Your task to perform on an android device: View the shopping cart on amazon. Search for logitech g pro on amazon, select the first entry, and add it to the cart. Image 0: 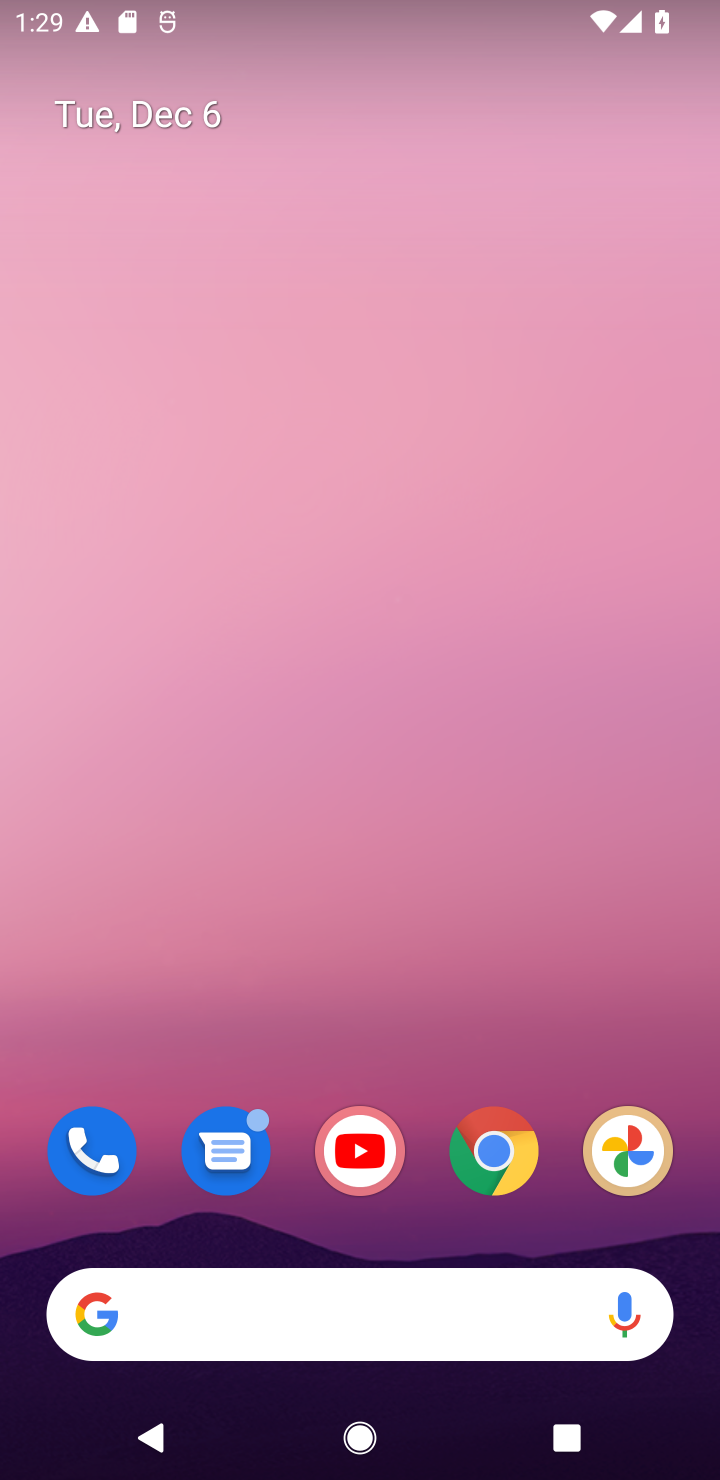
Step 0: click (495, 1156)
Your task to perform on an android device: View the shopping cart on amazon. Search for logitech g pro on amazon, select the first entry, and add it to the cart. Image 1: 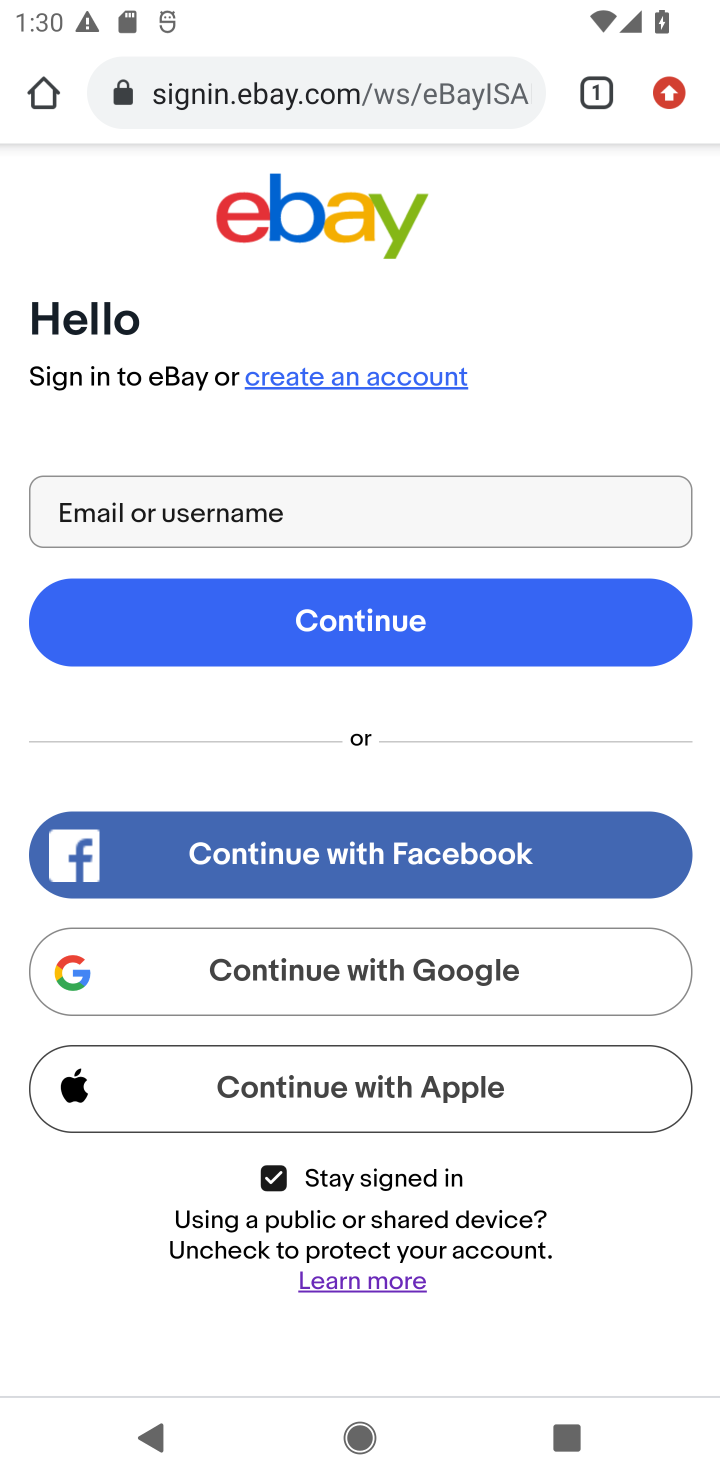
Step 1: click (330, 96)
Your task to perform on an android device: View the shopping cart on amazon. Search for logitech g pro on amazon, select the first entry, and add it to the cart. Image 2: 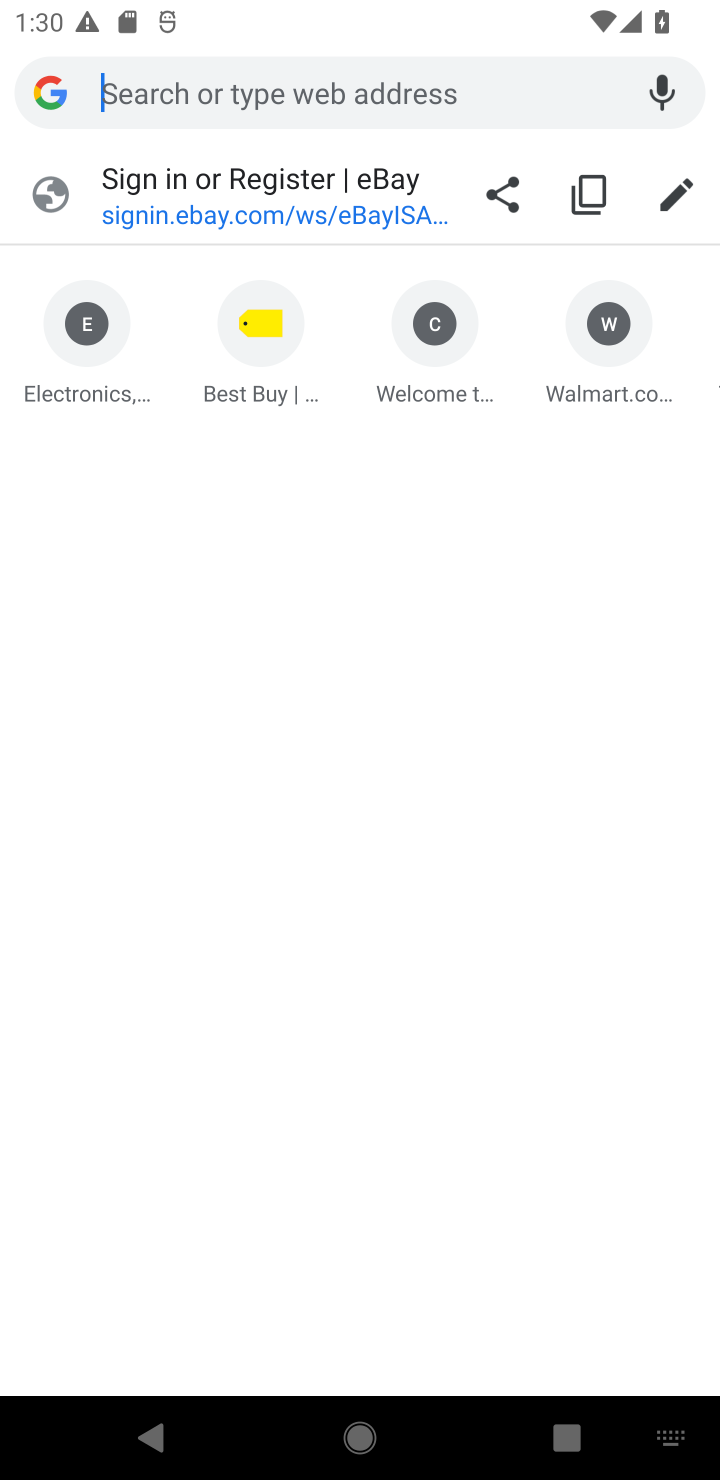
Step 2: type "amazon.com"
Your task to perform on an android device: View the shopping cart on amazon. Search for logitech g pro on amazon, select the first entry, and add it to the cart. Image 3: 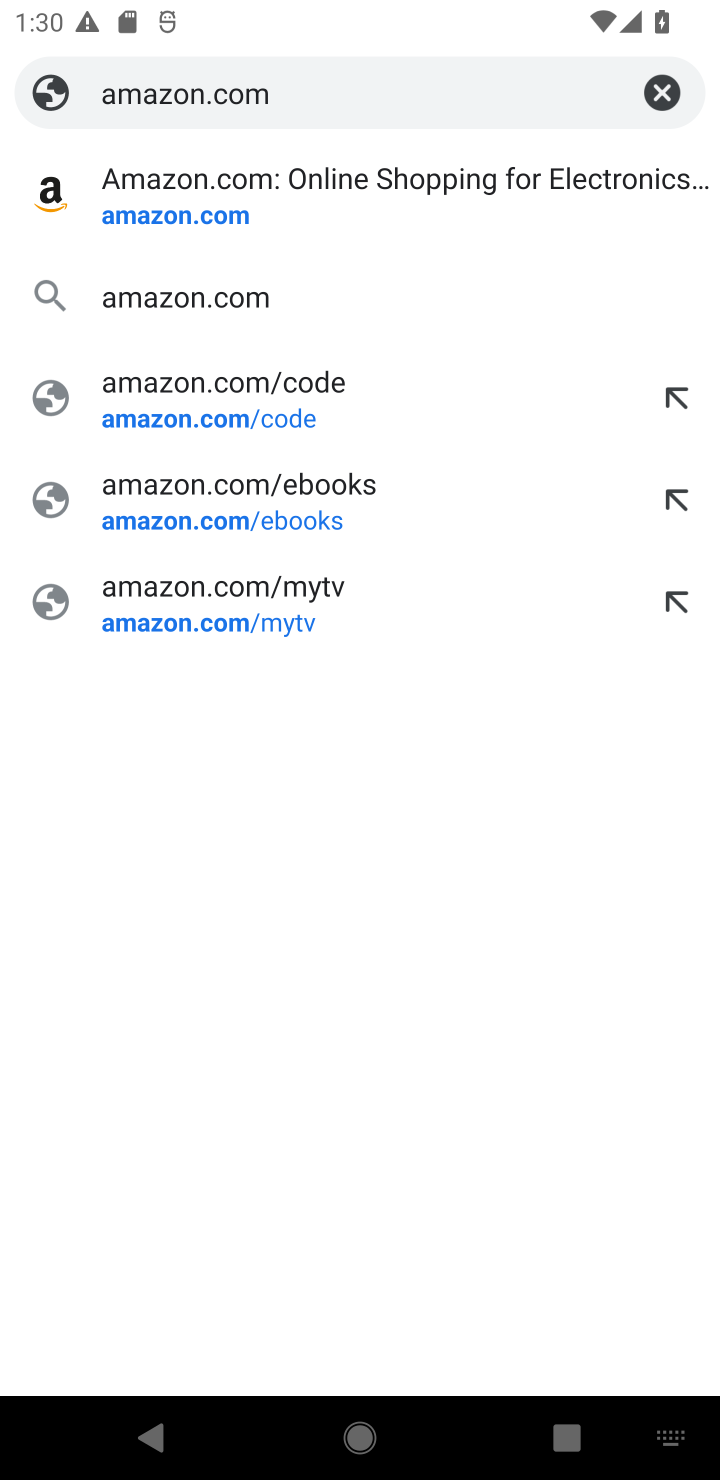
Step 3: click (186, 228)
Your task to perform on an android device: View the shopping cart on amazon. Search for logitech g pro on amazon, select the first entry, and add it to the cart. Image 4: 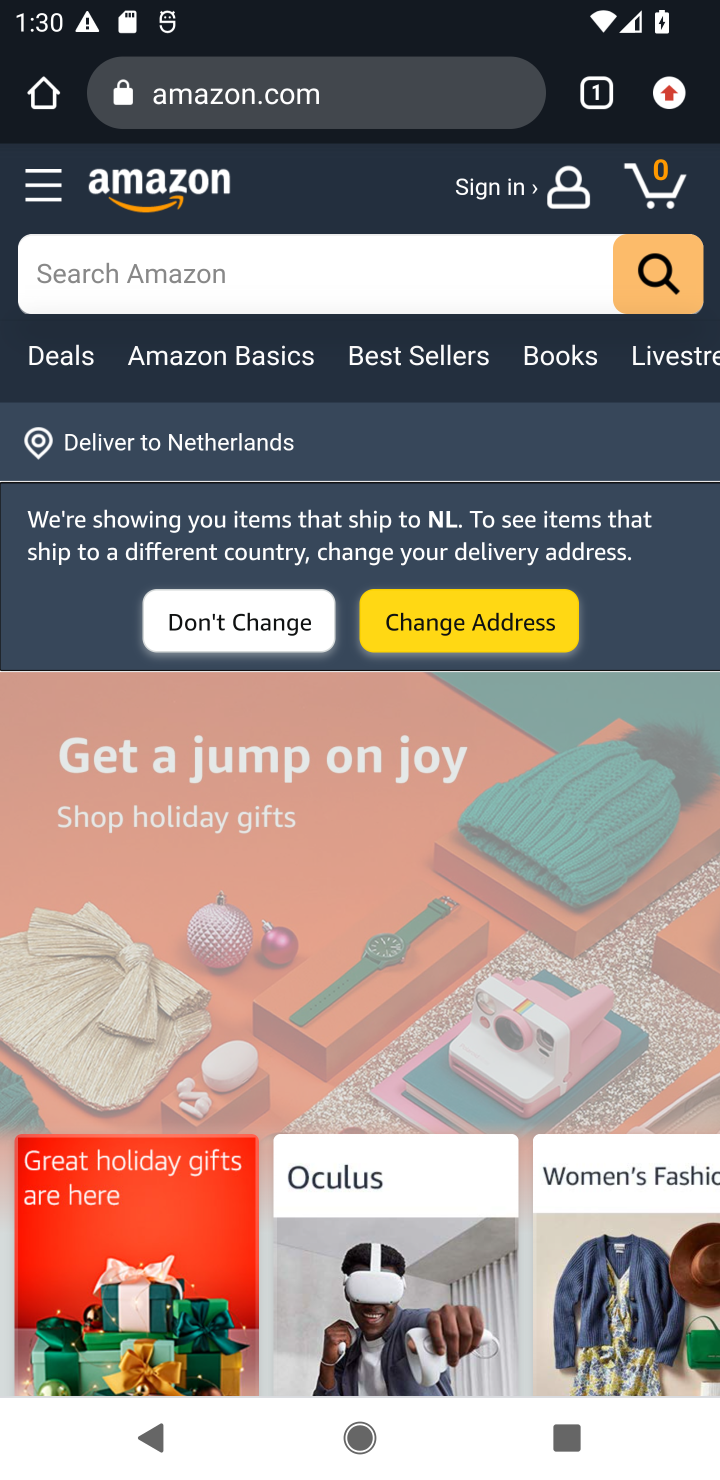
Step 4: click (659, 189)
Your task to perform on an android device: View the shopping cart on amazon. Search for logitech g pro on amazon, select the first entry, and add it to the cart. Image 5: 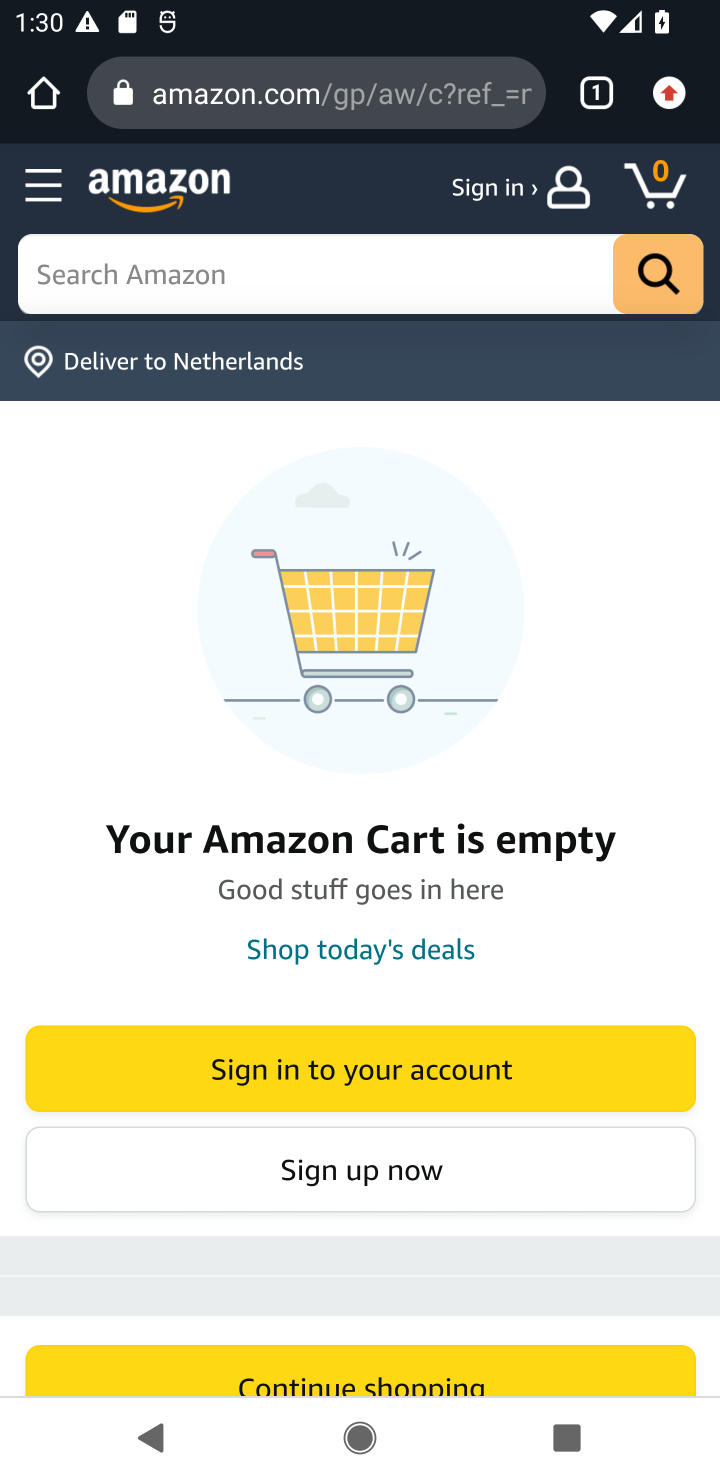
Step 5: click (132, 292)
Your task to perform on an android device: View the shopping cart on amazon. Search for logitech g pro on amazon, select the first entry, and add it to the cart. Image 6: 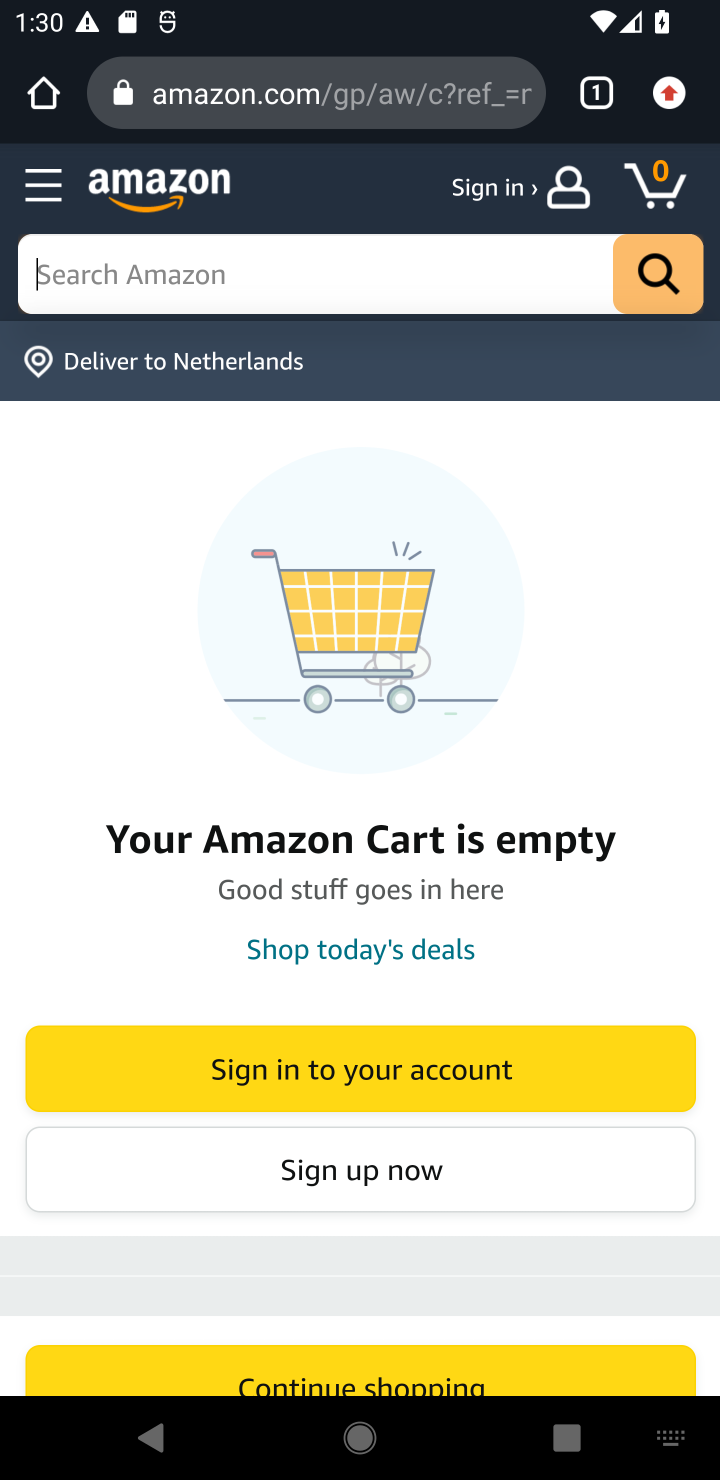
Step 6: type " logitech g pro"
Your task to perform on an android device: View the shopping cart on amazon. Search for logitech g pro on amazon, select the first entry, and add it to the cart. Image 7: 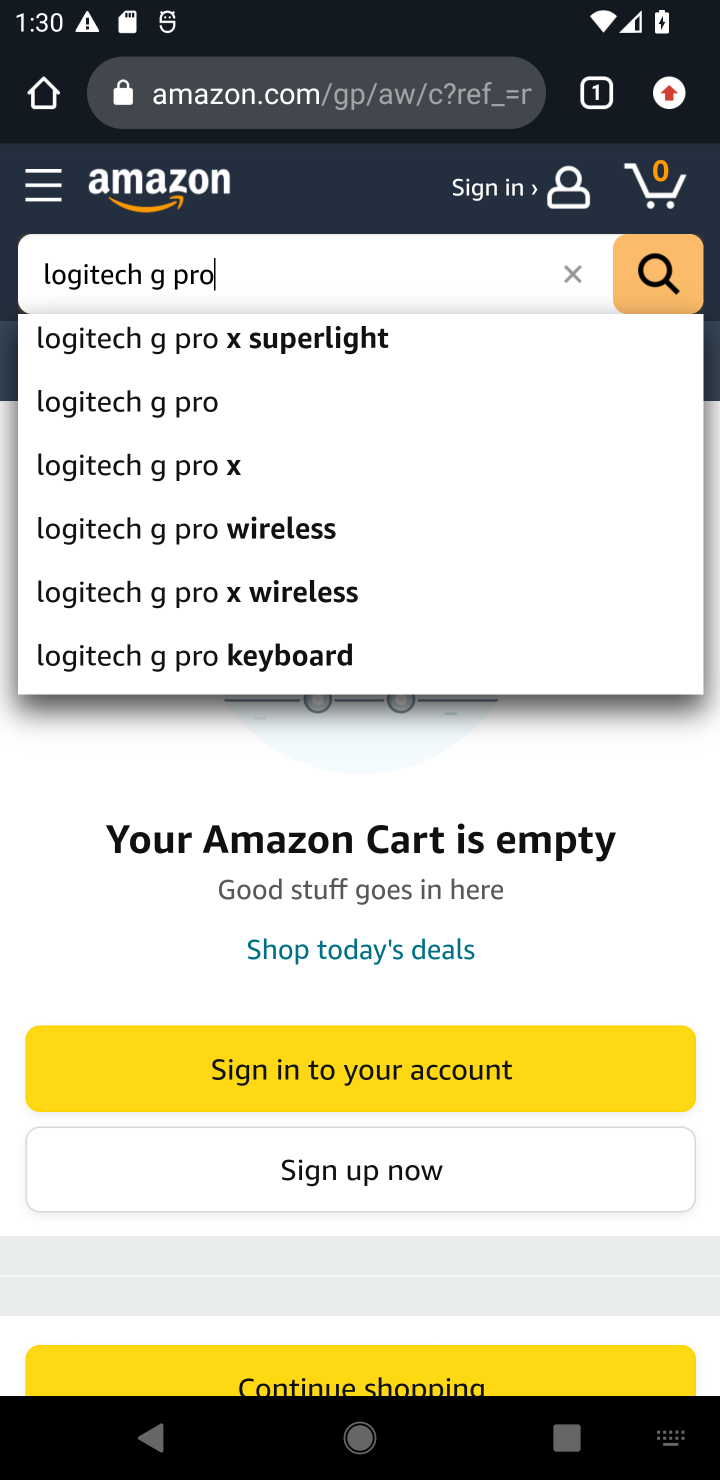
Step 7: click (194, 405)
Your task to perform on an android device: View the shopping cart on amazon. Search for logitech g pro on amazon, select the first entry, and add it to the cart. Image 8: 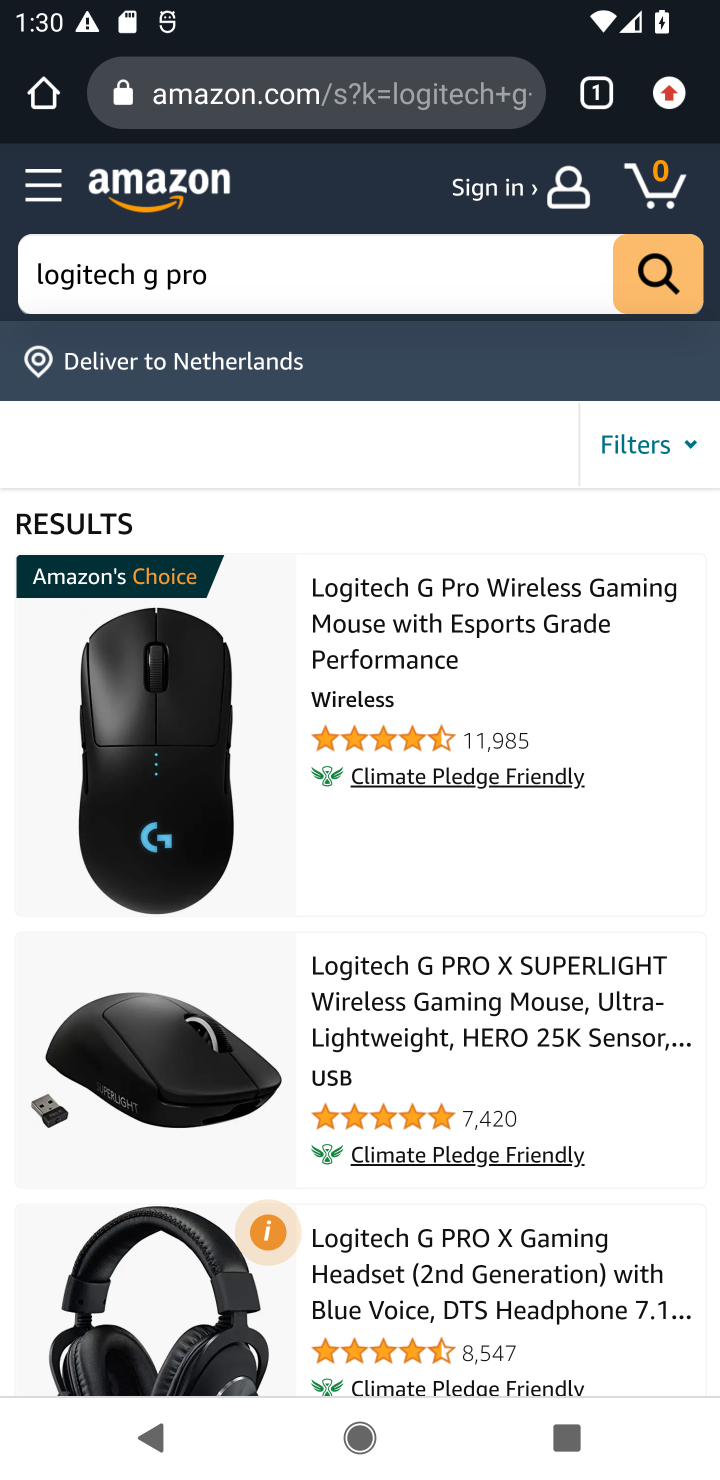
Step 8: click (398, 651)
Your task to perform on an android device: View the shopping cart on amazon. Search for logitech g pro on amazon, select the first entry, and add it to the cart. Image 9: 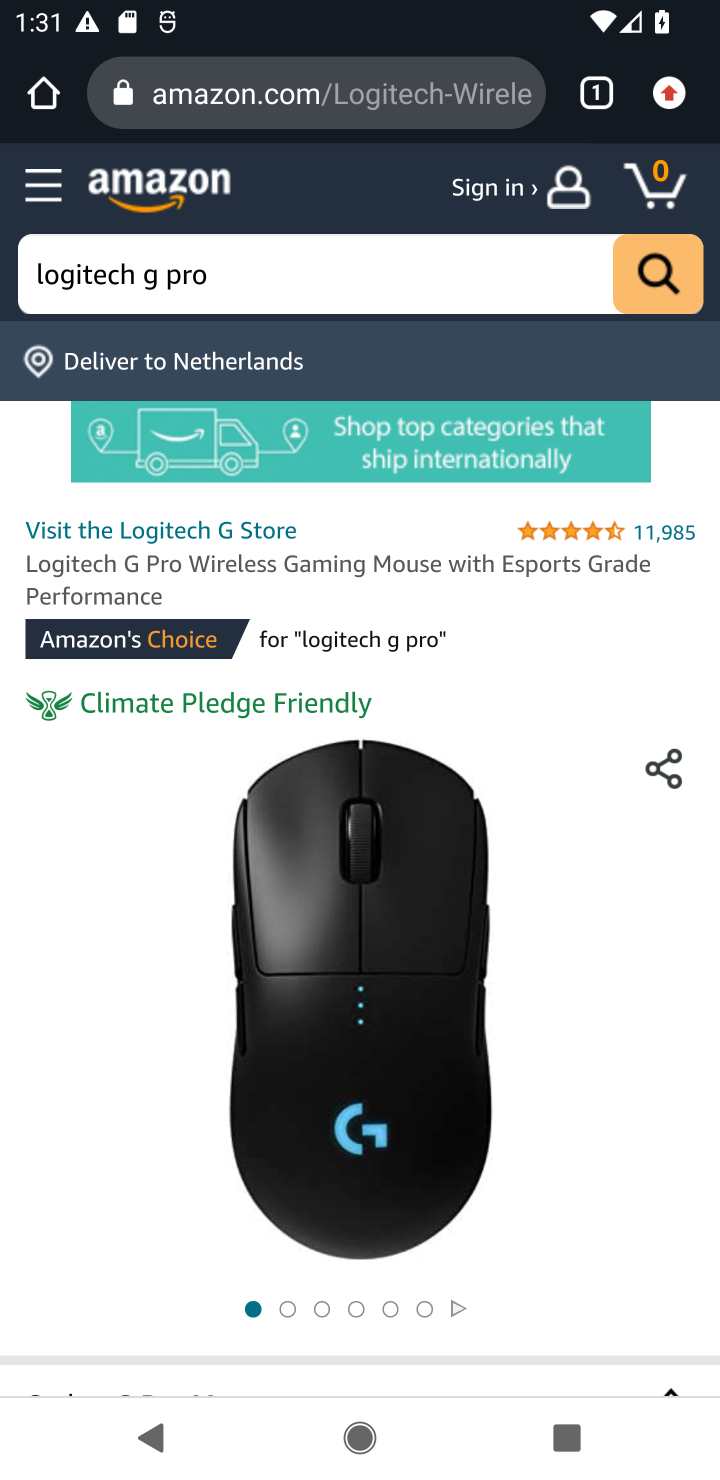
Step 9: task complete